Your task to perform on an android device: turn off location history Image 0: 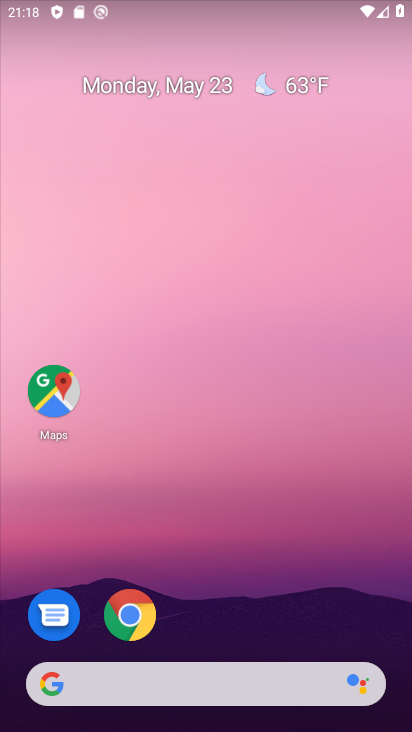
Step 0: drag from (231, 591) to (279, 167)
Your task to perform on an android device: turn off location history Image 1: 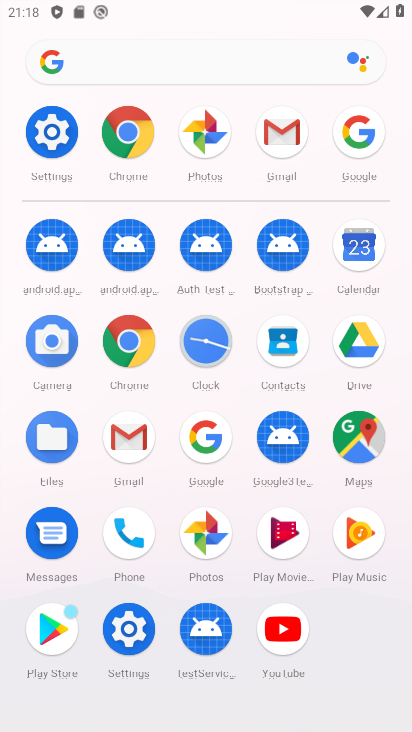
Step 1: click (54, 137)
Your task to perform on an android device: turn off location history Image 2: 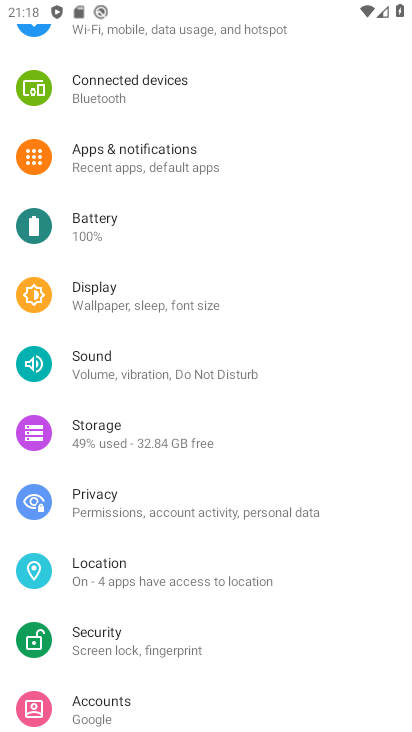
Step 2: click (108, 561)
Your task to perform on an android device: turn off location history Image 3: 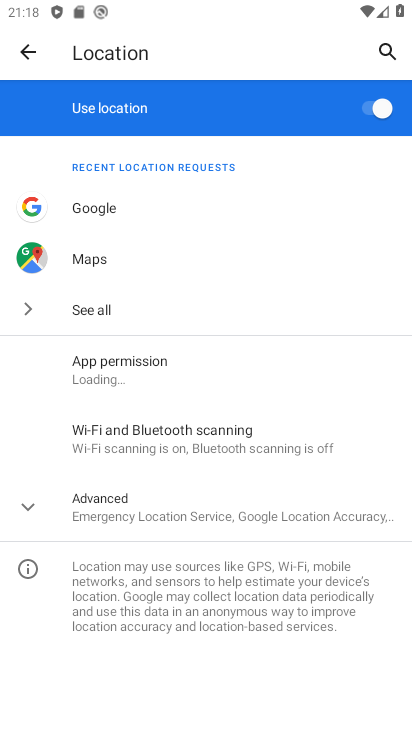
Step 3: click (120, 515)
Your task to perform on an android device: turn off location history Image 4: 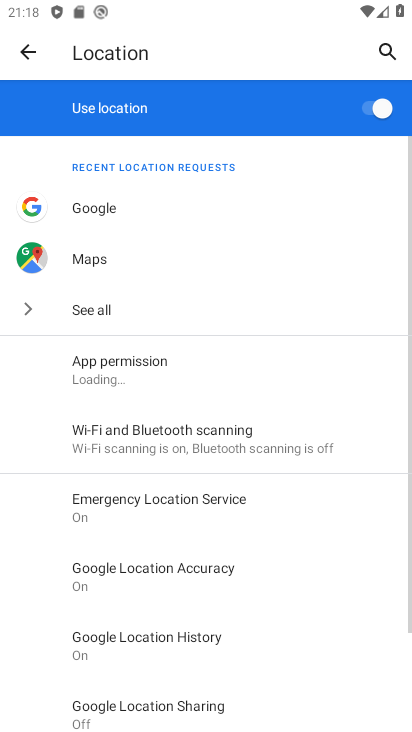
Step 4: click (187, 642)
Your task to perform on an android device: turn off location history Image 5: 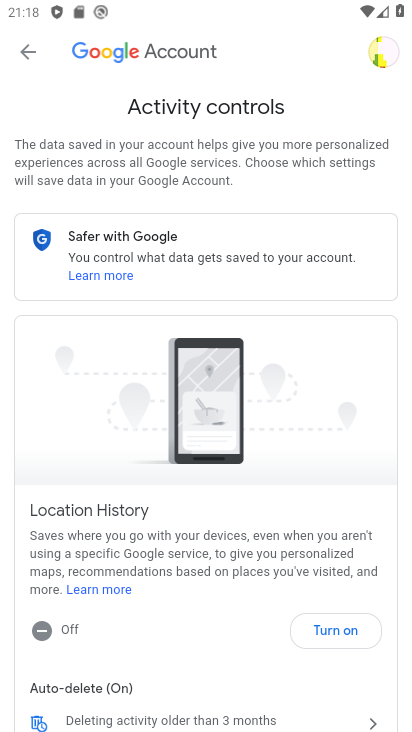
Step 5: task complete